Your task to perform on an android device: Clear all items from cart on newegg. Search for "alienware area 51" on newegg, select the first entry, add it to the cart, then select checkout. Image 0: 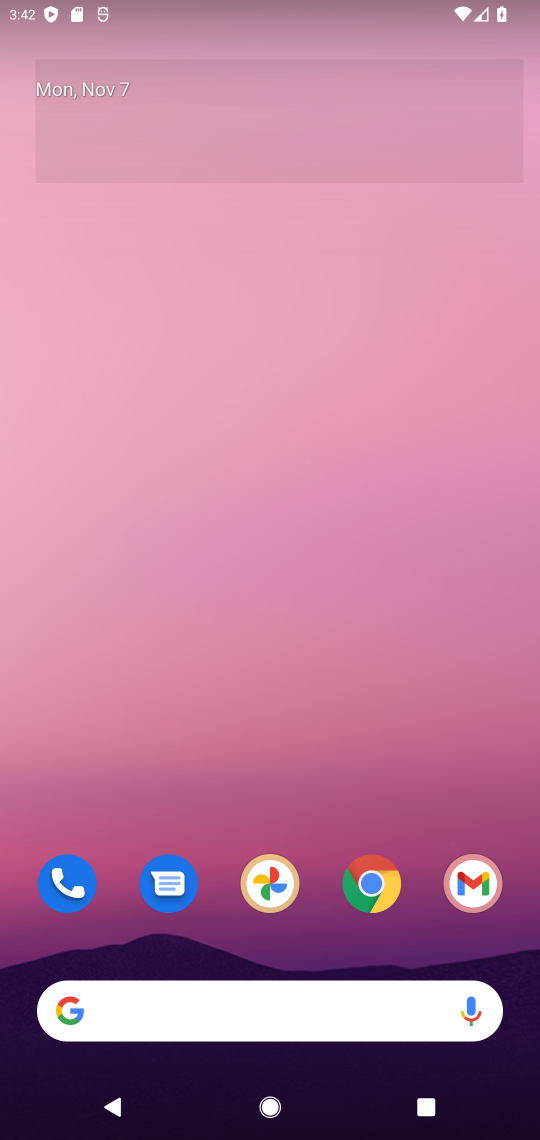
Step 0: click (353, 878)
Your task to perform on an android device: Clear all items from cart on newegg. Search for "alienware area 51" on newegg, select the first entry, add it to the cart, then select checkout. Image 1: 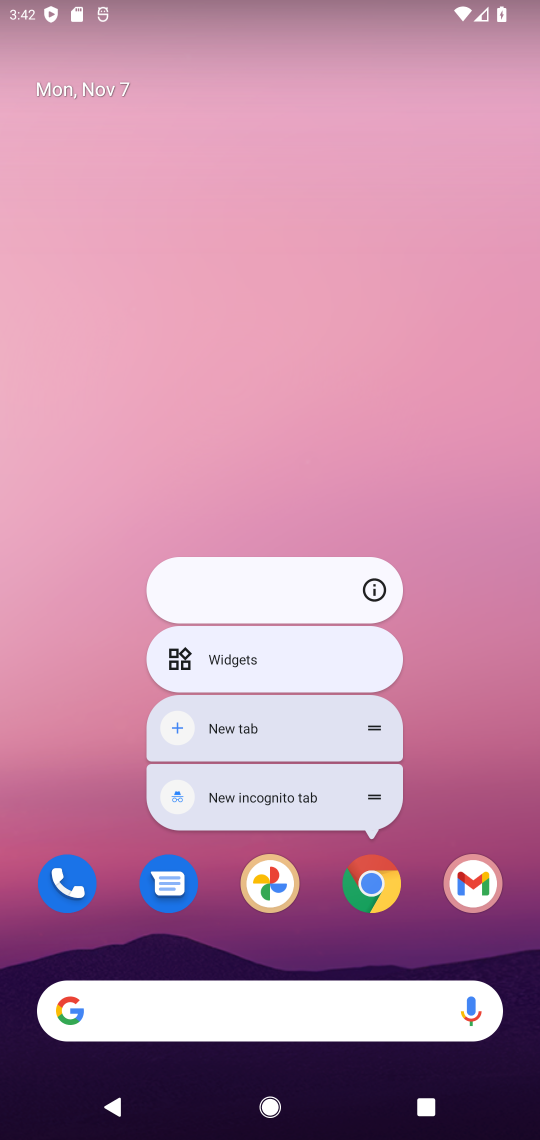
Step 1: click (353, 880)
Your task to perform on an android device: Clear all items from cart on newegg. Search for "alienware area 51" on newegg, select the first entry, add it to the cart, then select checkout. Image 2: 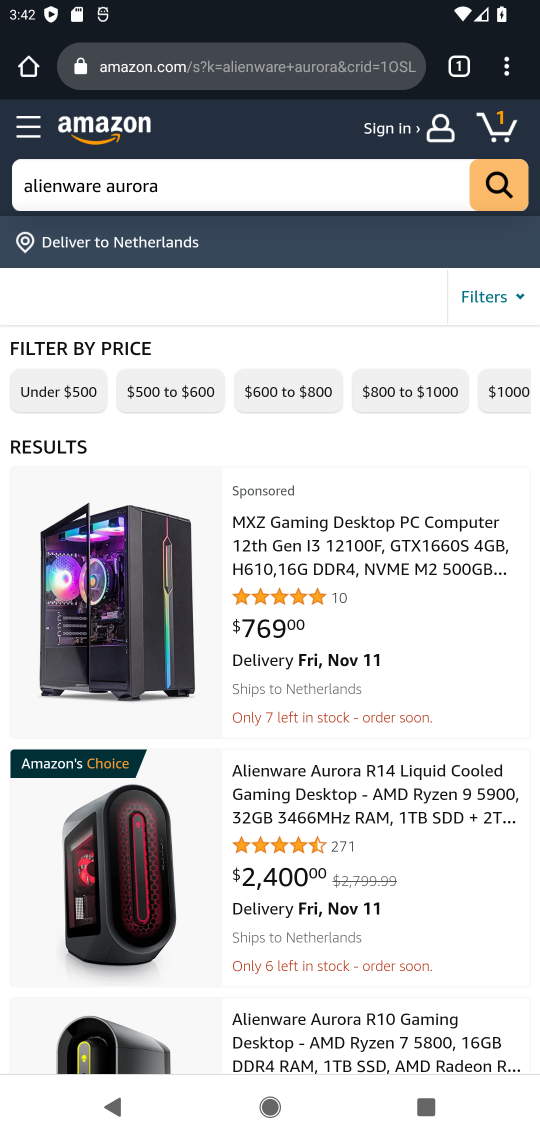
Step 2: click (250, 71)
Your task to perform on an android device: Clear all items from cart on newegg. Search for "alienware area 51" on newegg, select the first entry, add it to the cart, then select checkout. Image 3: 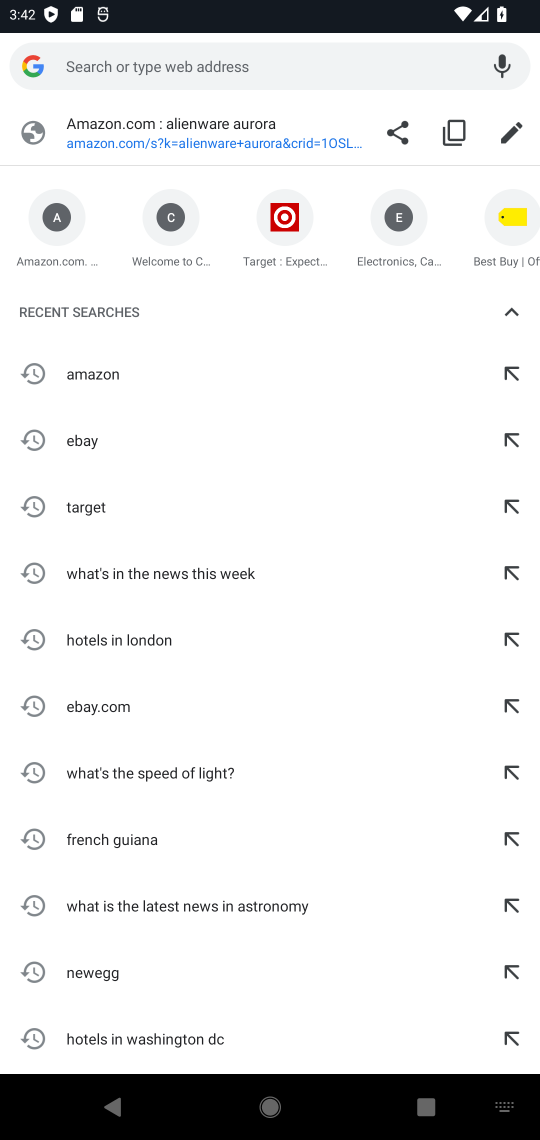
Step 3: click (107, 973)
Your task to perform on an android device: Clear all items from cart on newegg. Search for "alienware area 51" on newegg, select the first entry, add it to the cart, then select checkout. Image 4: 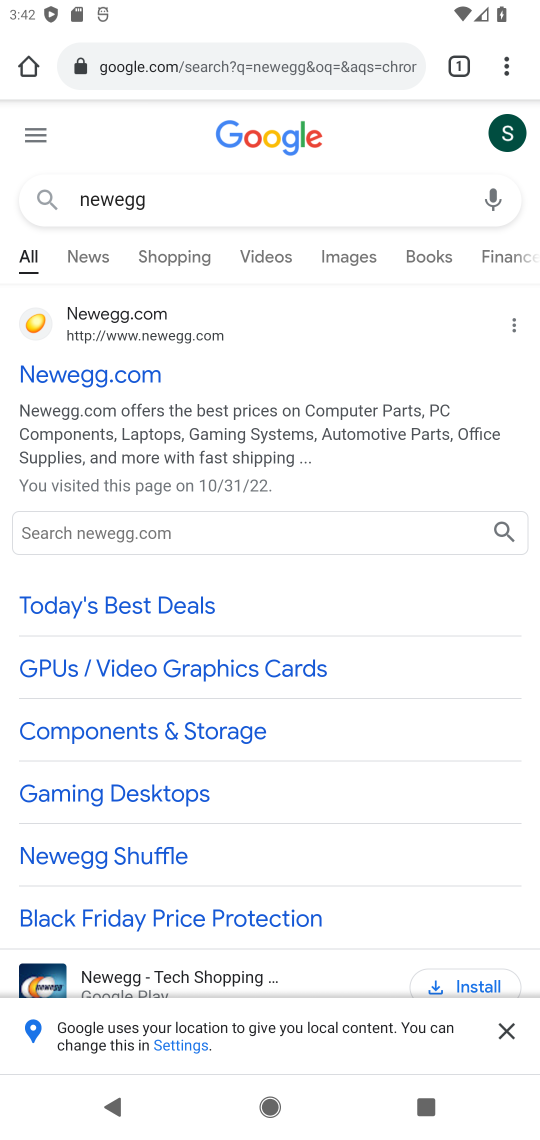
Step 4: click (67, 370)
Your task to perform on an android device: Clear all items from cart on newegg. Search for "alienware area 51" on newegg, select the first entry, add it to the cart, then select checkout. Image 5: 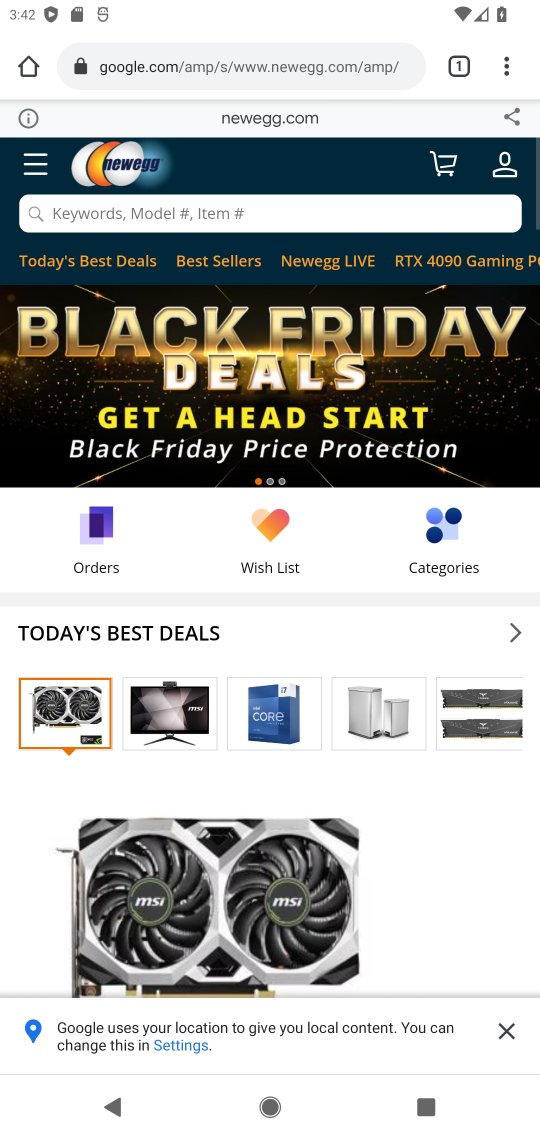
Step 5: click (219, 211)
Your task to perform on an android device: Clear all items from cart on newegg. Search for "alienware area 51" on newegg, select the first entry, add it to the cart, then select checkout. Image 6: 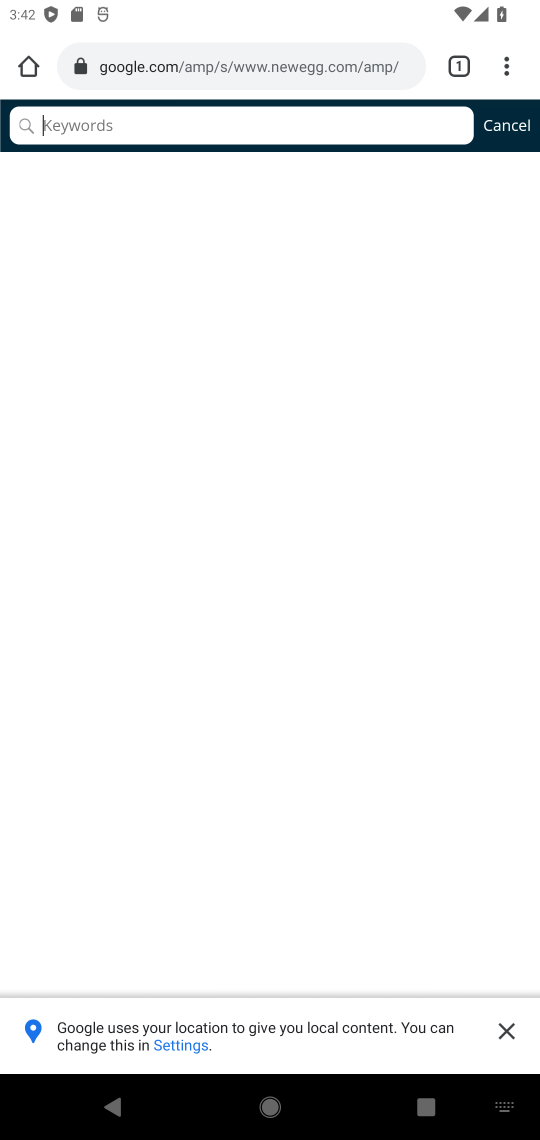
Step 6: type "alienware area 51"
Your task to perform on an android device: Clear all items from cart on newegg. Search for "alienware area 51" on newegg, select the first entry, add it to the cart, then select checkout. Image 7: 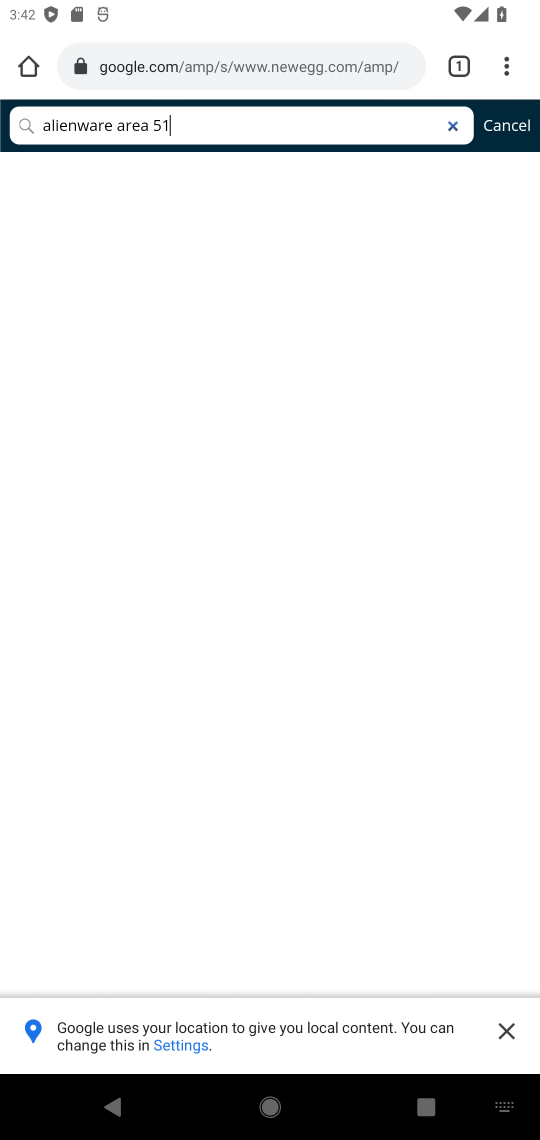
Step 7: press enter
Your task to perform on an android device: Clear all items from cart on newegg. Search for "alienware area 51" on newegg, select the first entry, add it to the cart, then select checkout. Image 8: 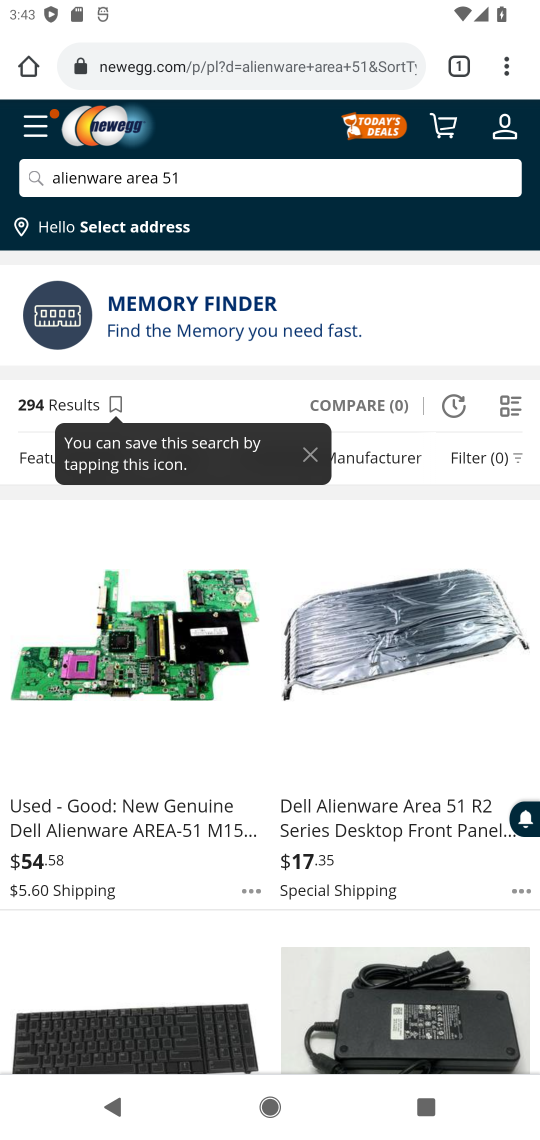
Step 8: click (147, 677)
Your task to perform on an android device: Clear all items from cart on newegg. Search for "alienware area 51" on newegg, select the first entry, add it to the cart, then select checkout. Image 9: 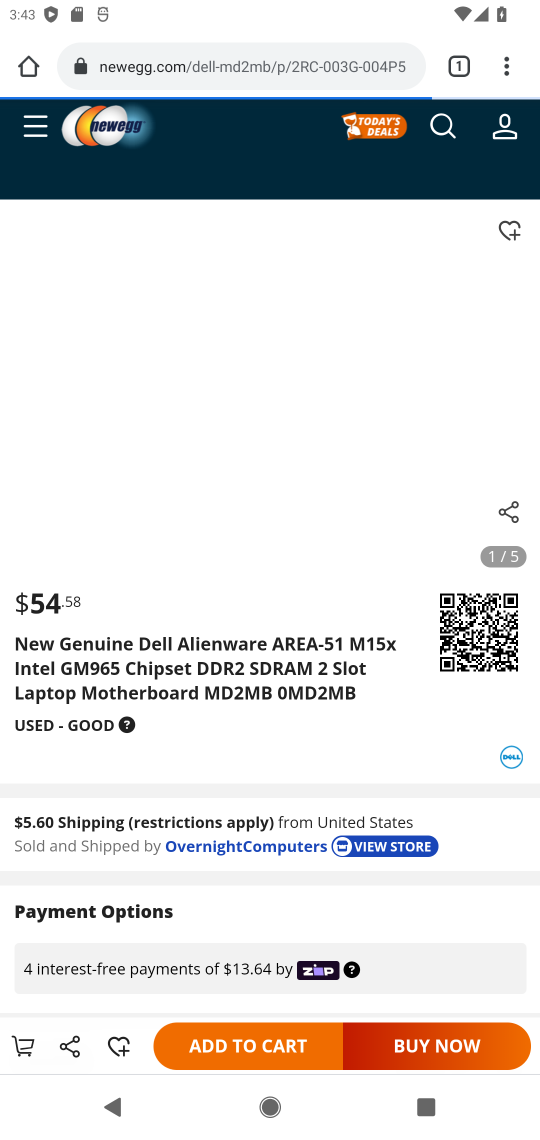
Step 9: click (137, 706)
Your task to perform on an android device: Clear all items from cart on newegg. Search for "alienware area 51" on newegg, select the first entry, add it to the cart, then select checkout. Image 10: 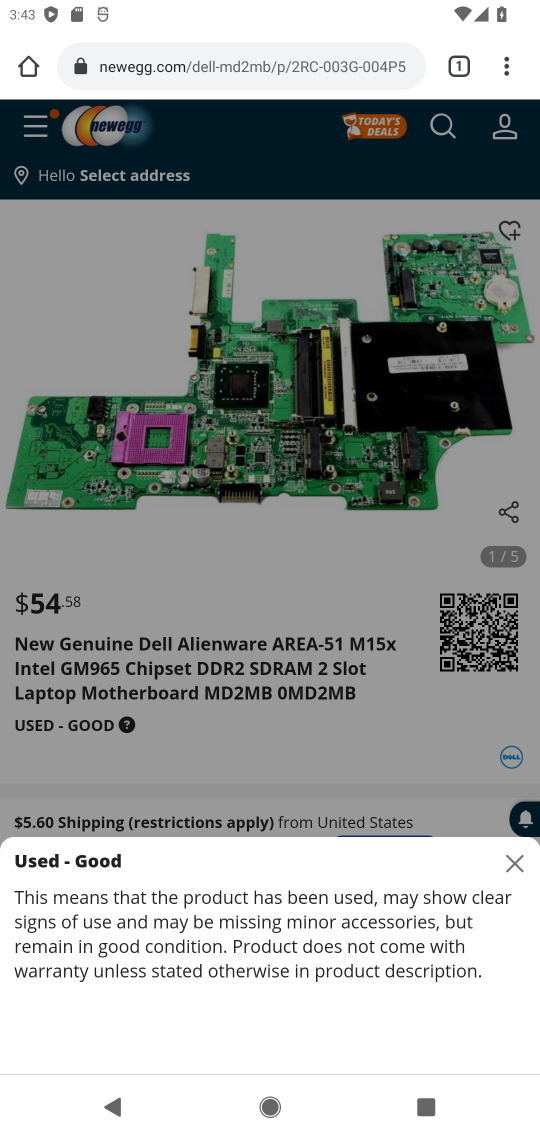
Step 10: click (511, 858)
Your task to perform on an android device: Clear all items from cart on newegg. Search for "alienware area 51" on newegg, select the first entry, add it to the cart, then select checkout. Image 11: 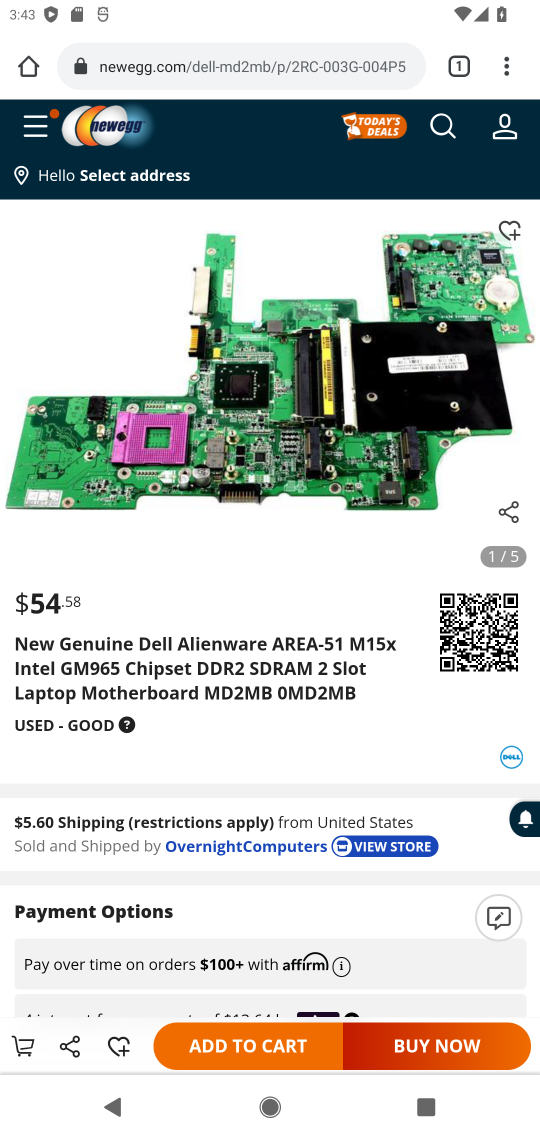
Step 11: click (235, 1036)
Your task to perform on an android device: Clear all items from cart on newegg. Search for "alienware area 51" on newegg, select the first entry, add it to the cart, then select checkout. Image 12: 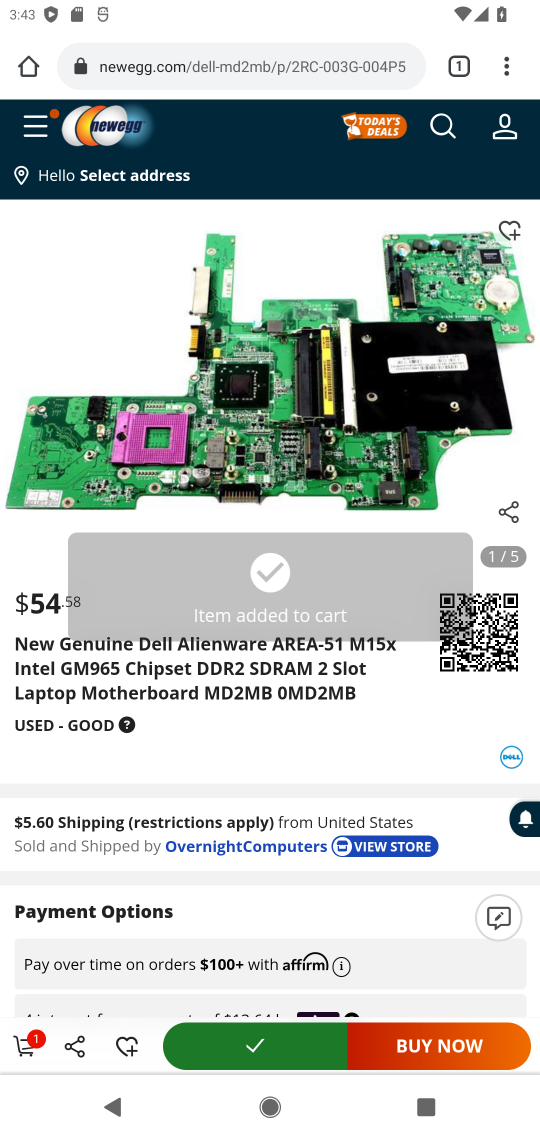
Step 12: click (29, 1030)
Your task to perform on an android device: Clear all items from cart on newegg. Search for "alienware area 51" on newegg, select the first entry, add it to the cart, then select checkout. Image 13: 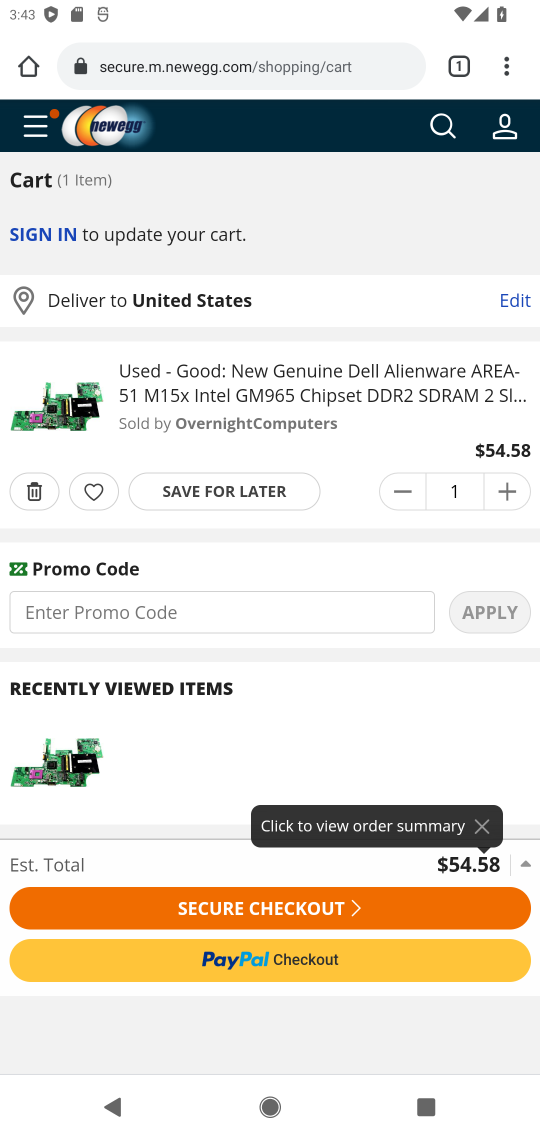
Step 13: drag from (270, 828) to (296, 471)
Your task to perform on an android device: Clear all items from cart on newegg. Search for "alienware area 51" on newegg, select the first entry, add it to the cart, then select checkout. Image 14: 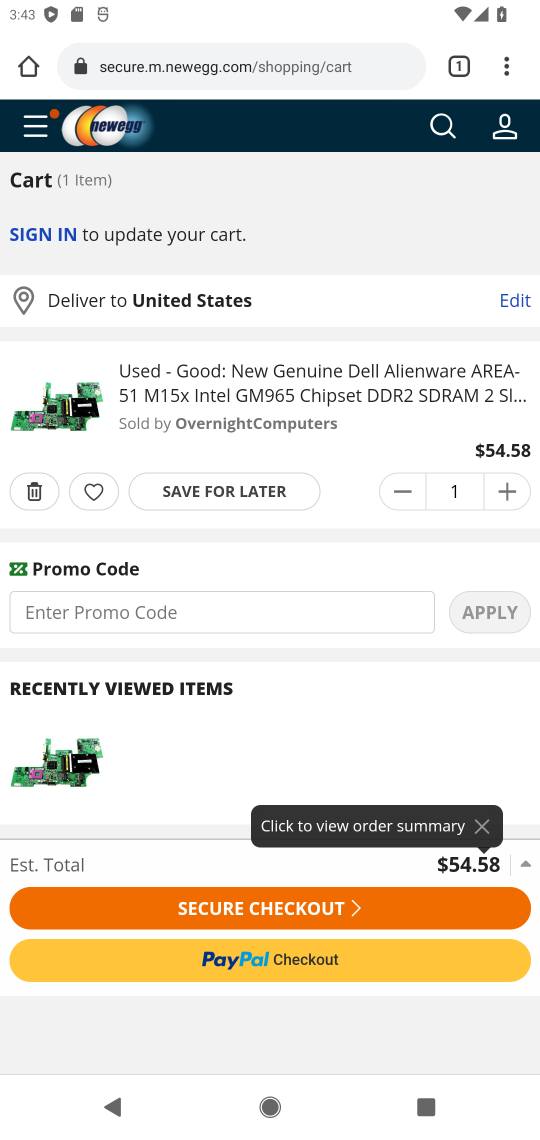
Step 14: click (284, 910)
Your task to perform on an android device: Clear all items from cart on newegg. Search for "alienware area 51" on newegg, select the first entry, add it to the cart, then select checkout. Image 15: 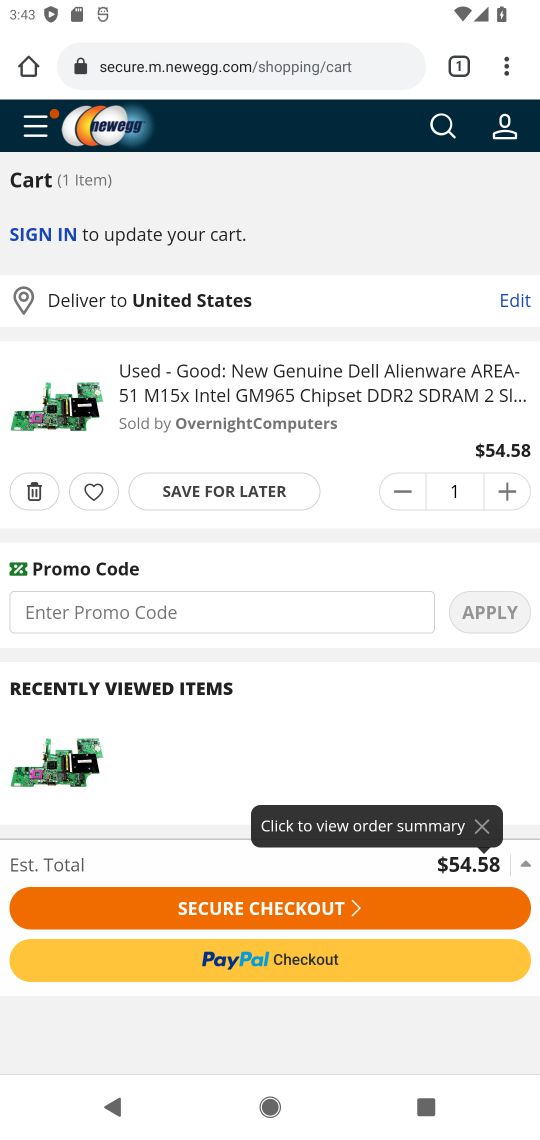
Step 15: click (288, 903)
Your task to perform on an android device: Clear all items from cart on newegg. Search for "alienware area 51" on newegg, select the first entry, add it to the cart, then select checkout. Image 16: 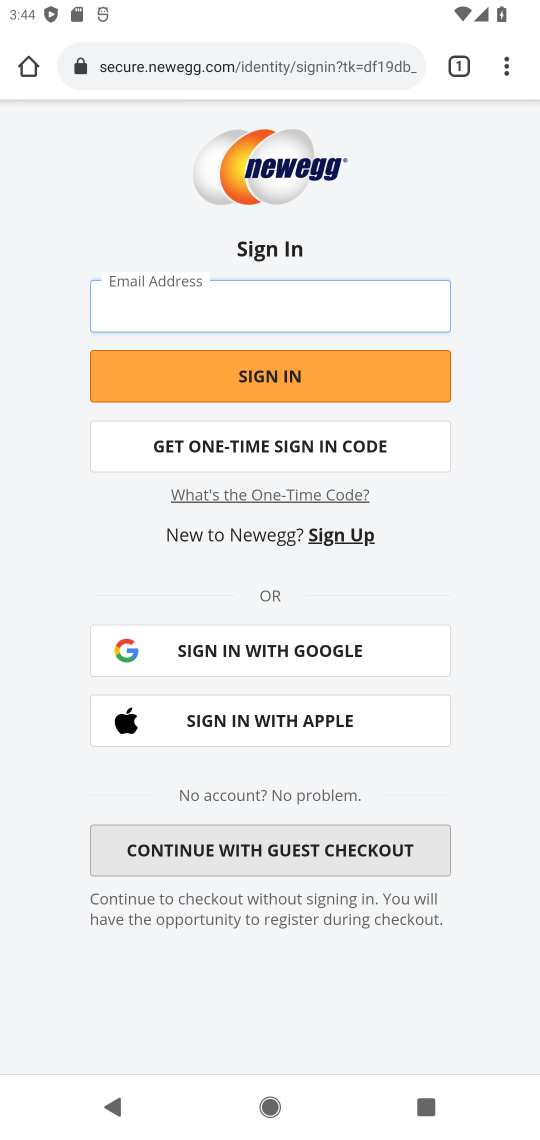
Step 16: task complete